Your task to perform on an android device: clear all cookies in the chrome app Image 0: 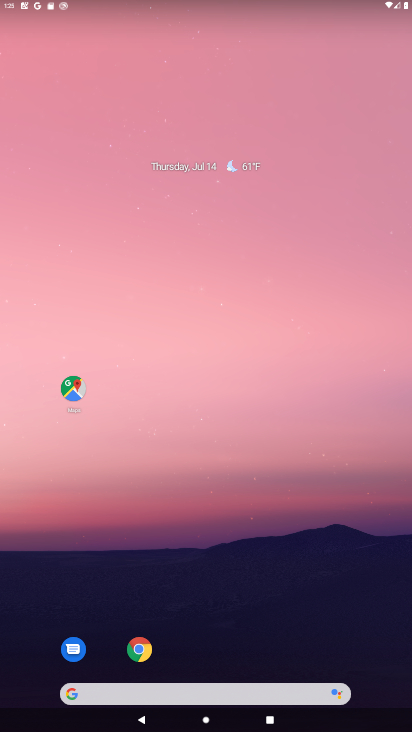
Step 0: drag from (273, 693) to (281, 346)
Your task to perform on an android device: clear all cookies in the chrome app Image 1: 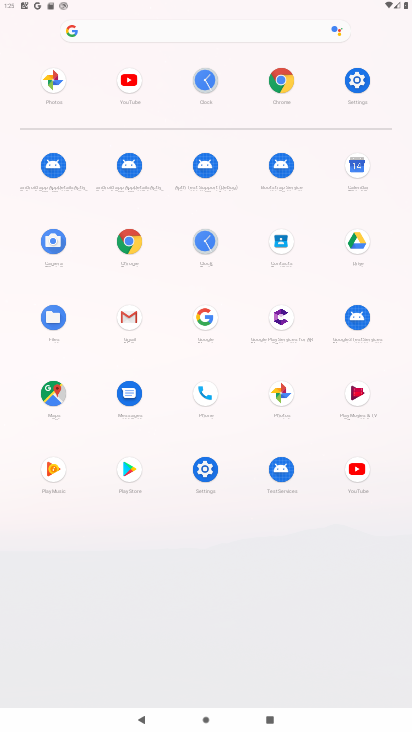
Step 1: click (135, 240)
Your task to perform on an android device: clear all cookies in the chrome app Image 2: 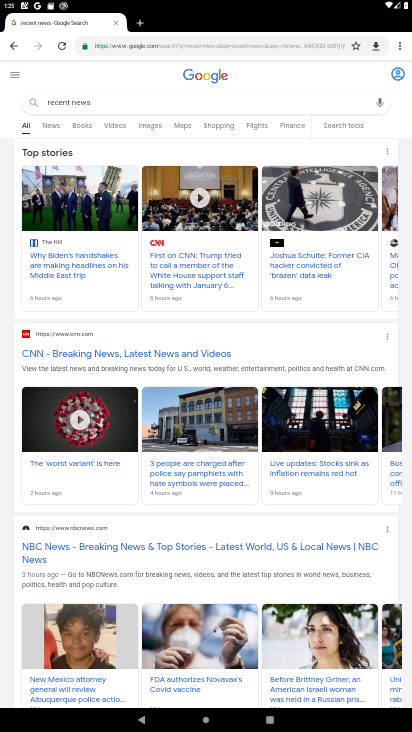
Step 2: drag from (397, 40) to (313, 287)
Your task to perform on an android device: clear all cookies in the chrome app Image 3: 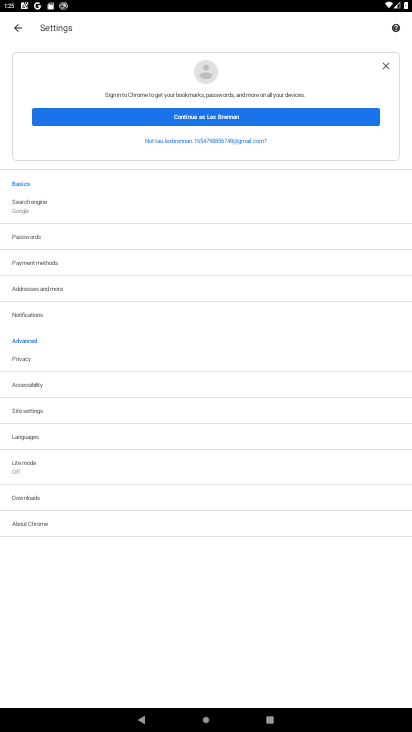
Step 3: click (39, 362)
Your task to perform on an android device: clear all cookies in the chrome app Image 4: 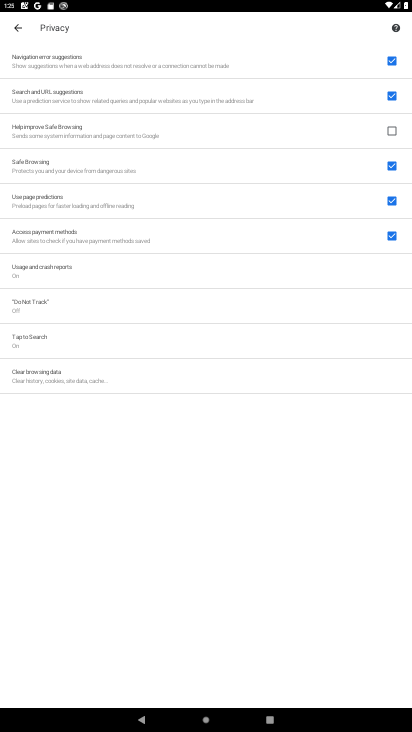
Step 4: click (106, 370)
Your task to perform on an android device: clear all cookies in the chrome app Image 5: 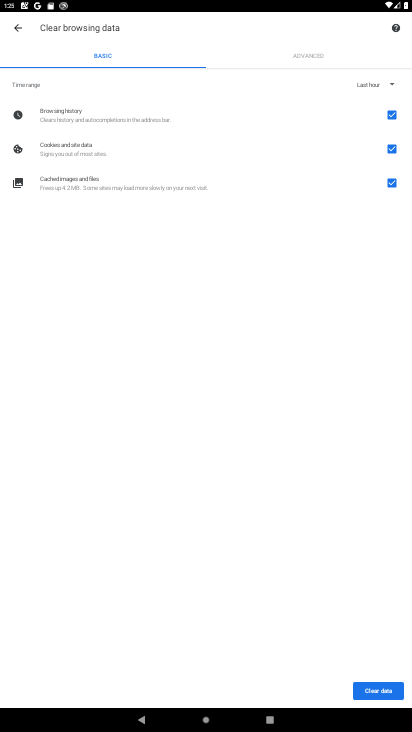
Step 5: click (382, 690)
Your task to perform on an android device: clear all cookies in the chrome app Image 6: 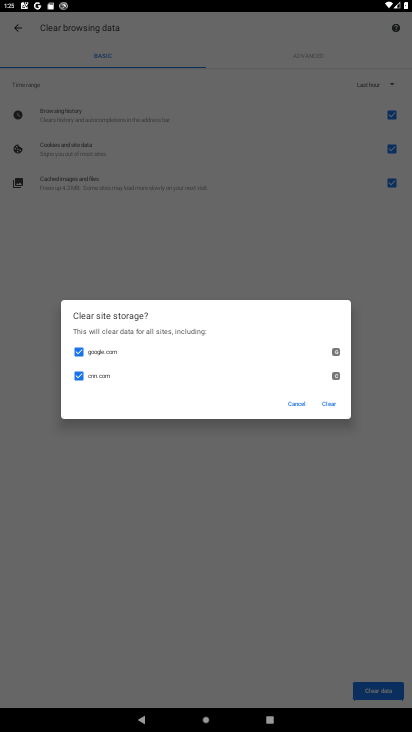
Step 6: click (325, 406)
Your task to perform on an android device: clear all cookies in the chrome app Image 7: 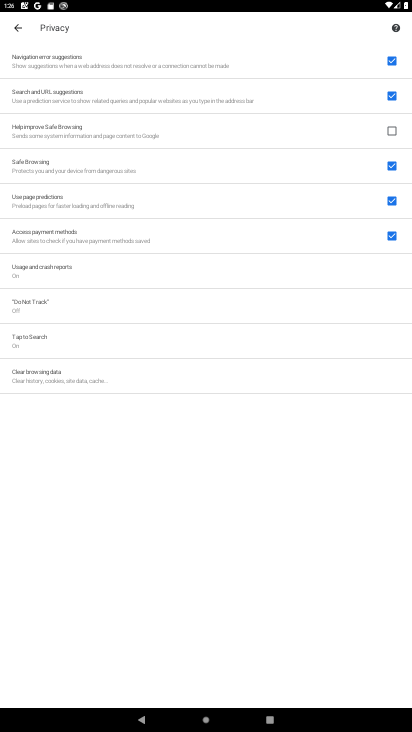
Step 7: task complete